Your task to perform on an android device: star an email in the gmail app Image 0: 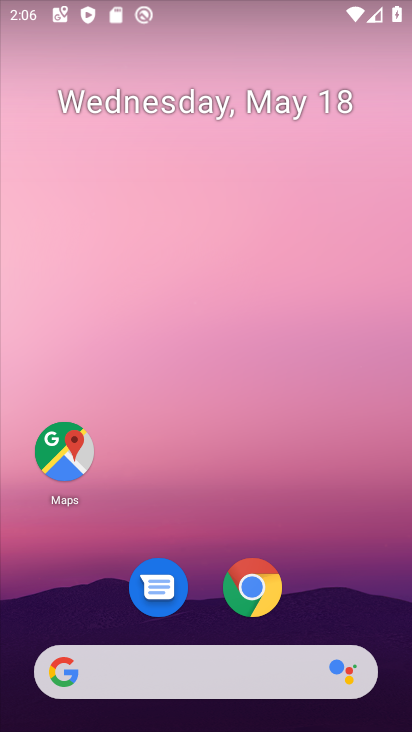
Step 0: drag from (361, 598) to (336, 0)
Your task to perform on an android device: star an email in the gmail app Image 1: 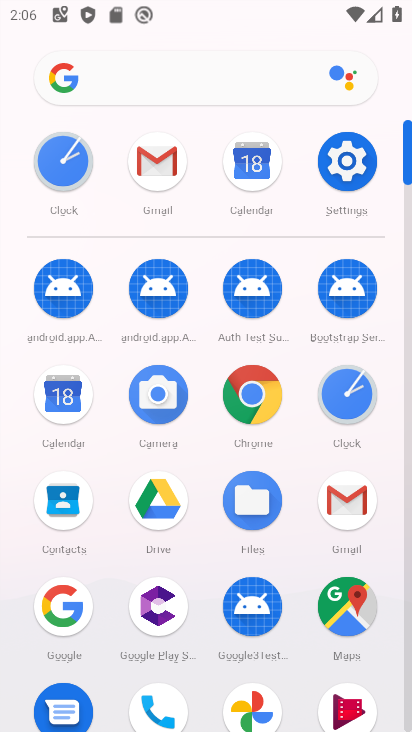
Step 1: click (158, 162)
Your task to perform on an android device: star an email in the gmail app Image 2: 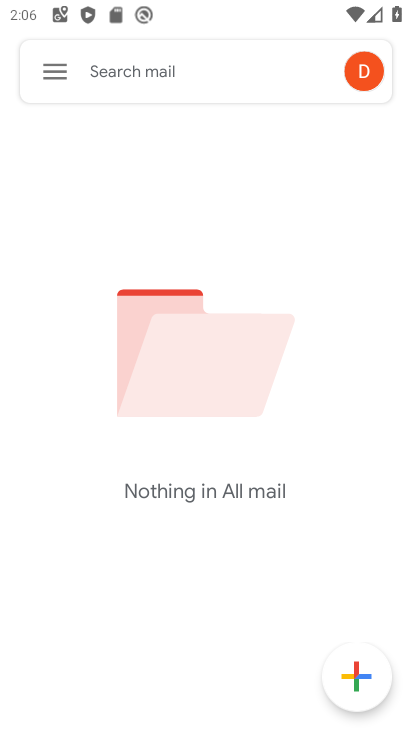
Step 2: task complete